Your task to perform on an android device: Open the calendar app, open the side menu, and click the "Day" option Image 0: 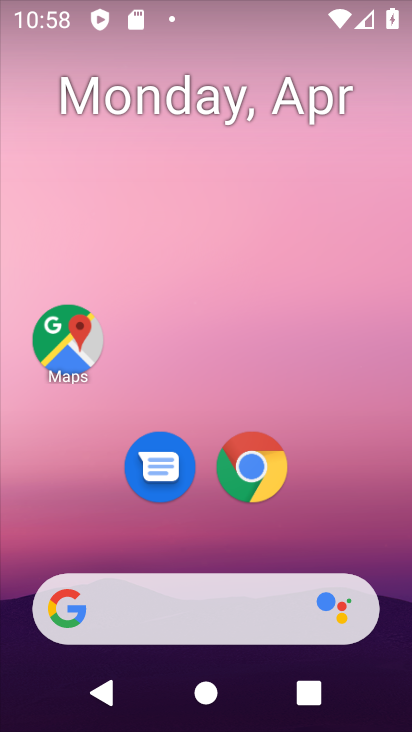
Step 0: press home button
Your task to perform on an android device: Open the calendar app, open the side menu, and click the "Day" option Image 1: 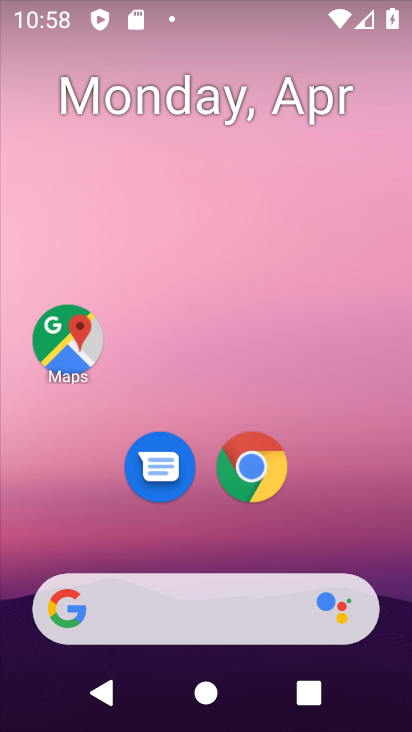
Step 1: drag from (315, 488) to (348, 116)
Your task to perform on an android device: Open the calendar app, open the side menu, and click the "Day" option Image 2: 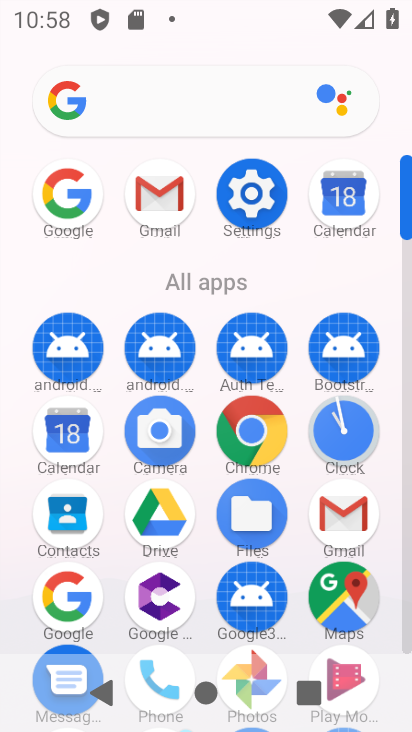
Step 2: click (55, 448)
Your task to perform on an android device: Open the calendar app, open the side menu, and click the "Day" option Image 3: 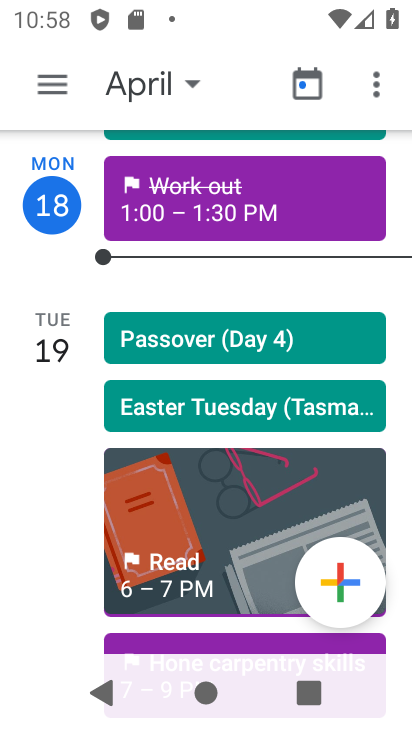
Step 3: click (50, 80)
Your task to perform on an android device: Open the calendar app, open the side menu, and click the "Day" option Image 4: 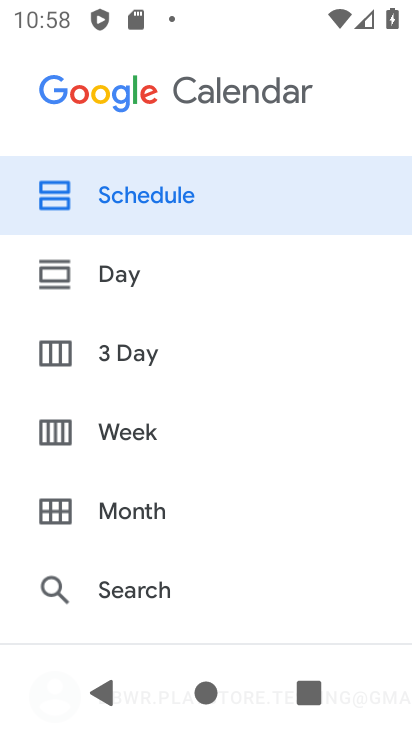
Step 4: click (84, 269)
Your task to perform on an android device: Open the calendar app, open the side menu, and click the "Day" option Image 5: 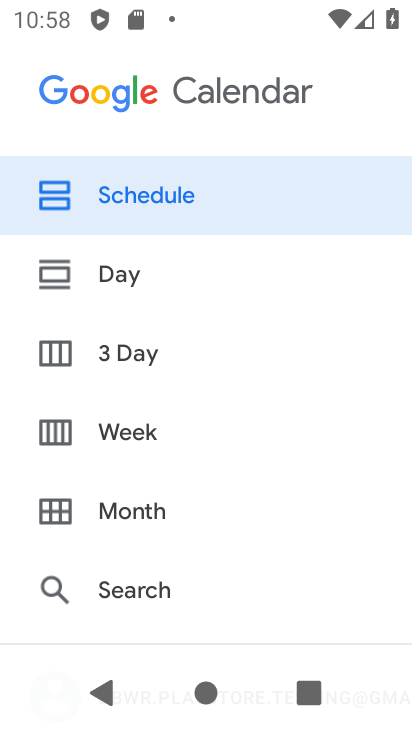
Step 5: click (140, 275)
Your task to perform on an android device: Open the calendar app, open the side menu, and click the "Day" option Image 6: 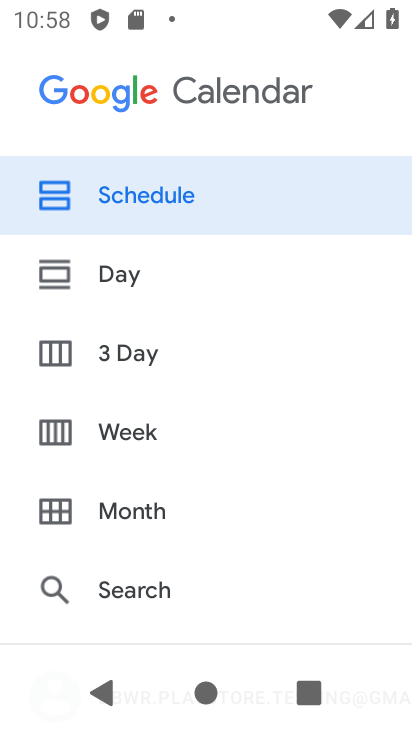
Step 6: click (139, 280)
Your task to perform on an android device: Open the calendar app, open the side menu, and click the "Day" option Image 7: 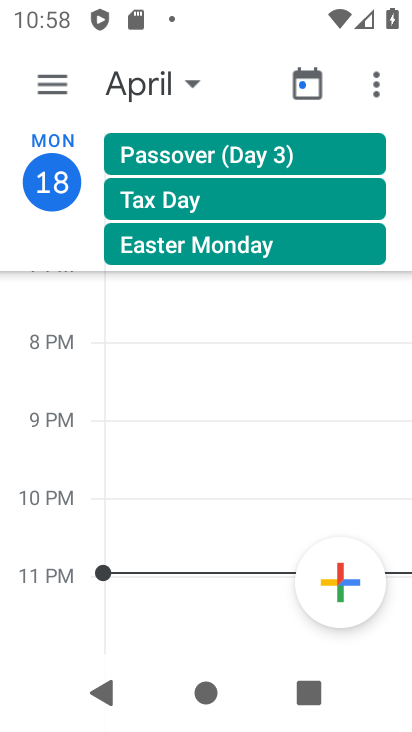
Step 7: task complete